Your task to perform on an android device: Check the weather Image 0: 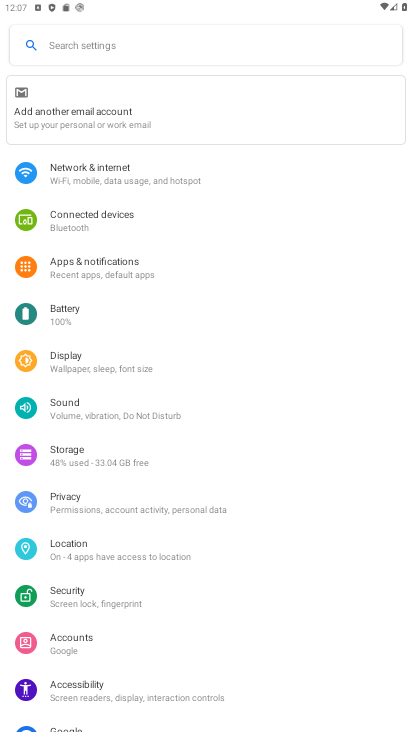
Step 0: press home button
Your task to perform on an android device: Check the weather Image 1: 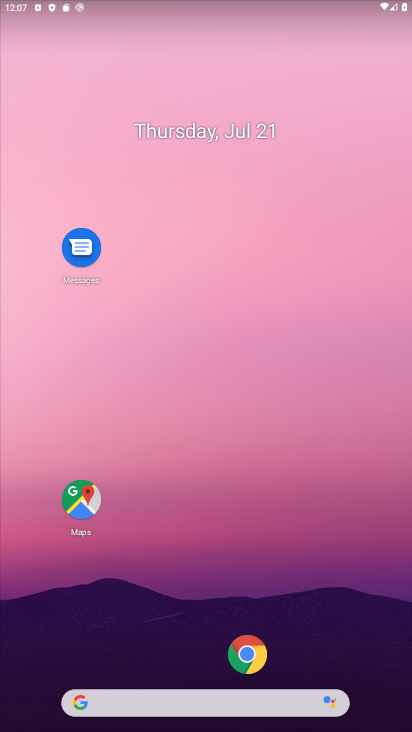
Step 1: click (140, 698)
Your task to perform on an android device: Check the weather Image 2: 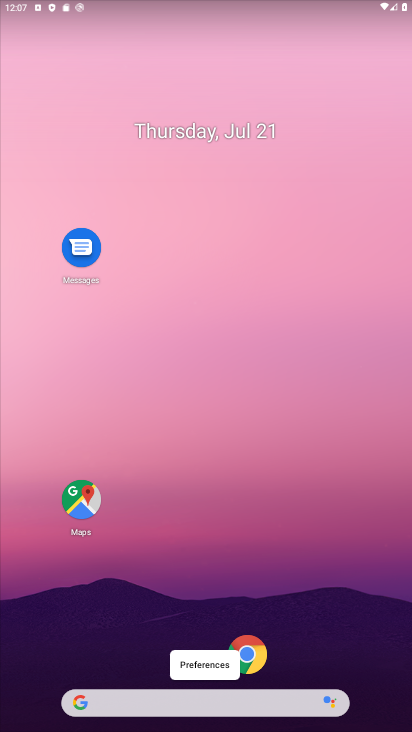
Step 2: click (140, 698)
Your task to perform on an android device: Check the weather Image 3: 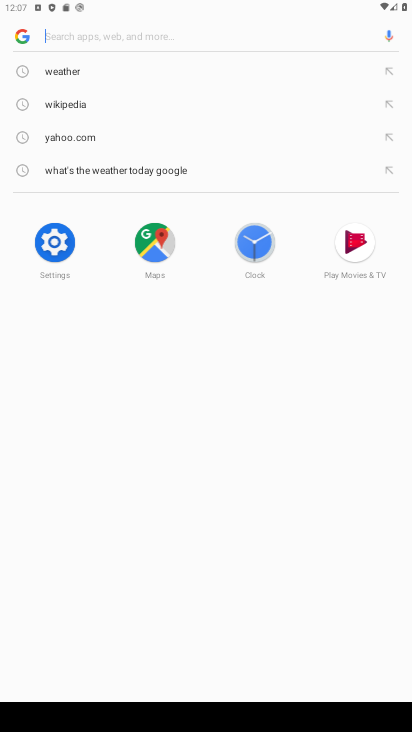
Step 3: click (77, 71)
Your task to perform on an android device: Check the weather Image 4: 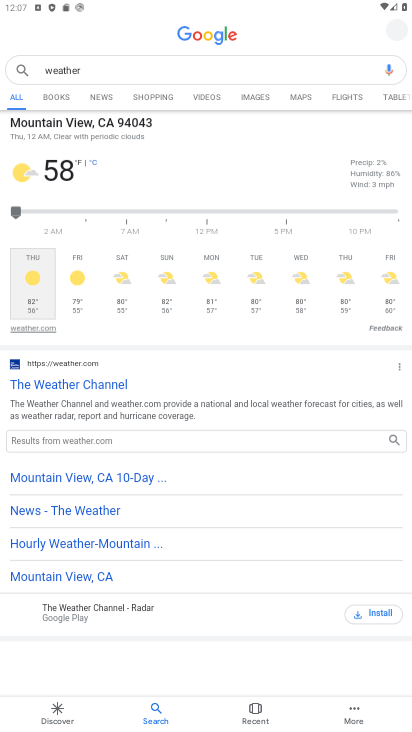
Step 4: task complete